Your task to perform on an android device: Open CNN.com Image 0: 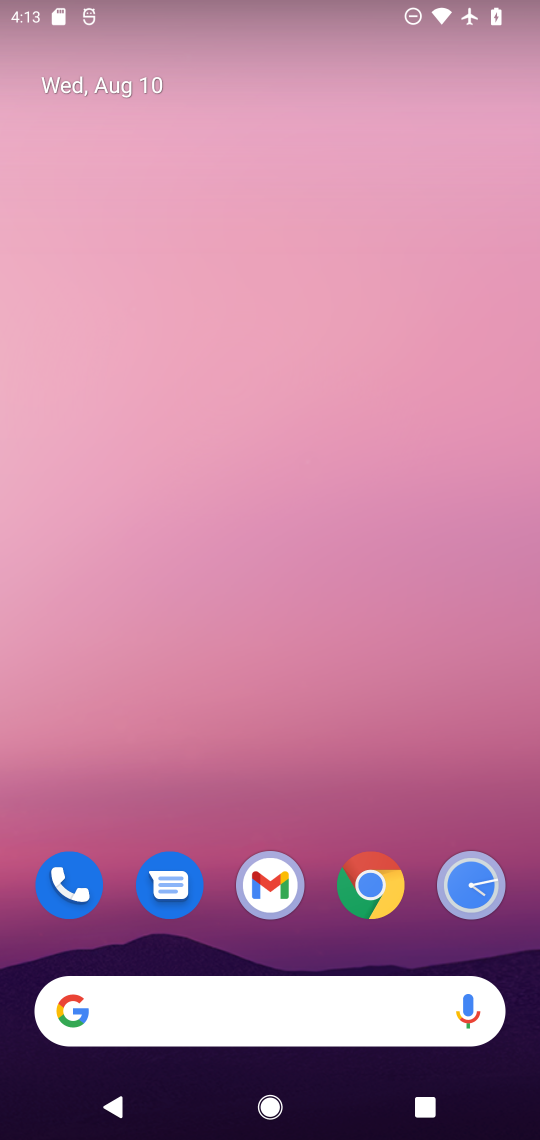
Step 0: click (374, 890)
Your task to perform on an android device: Open CNN.com Image 1: 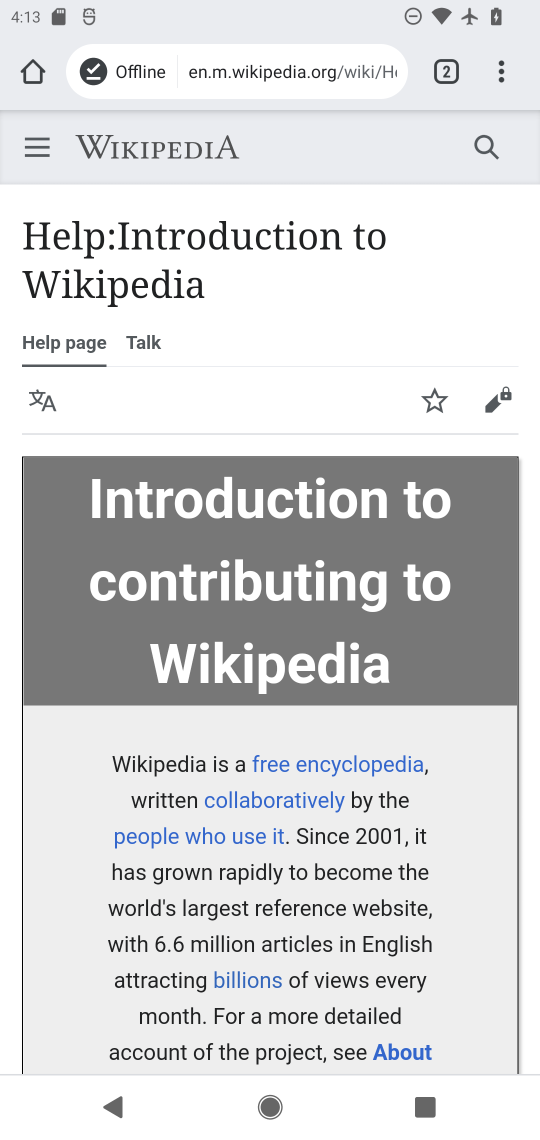
Step 1: click (506, 73)
Your task to perform on an android device: Open CNN.com Image 2: 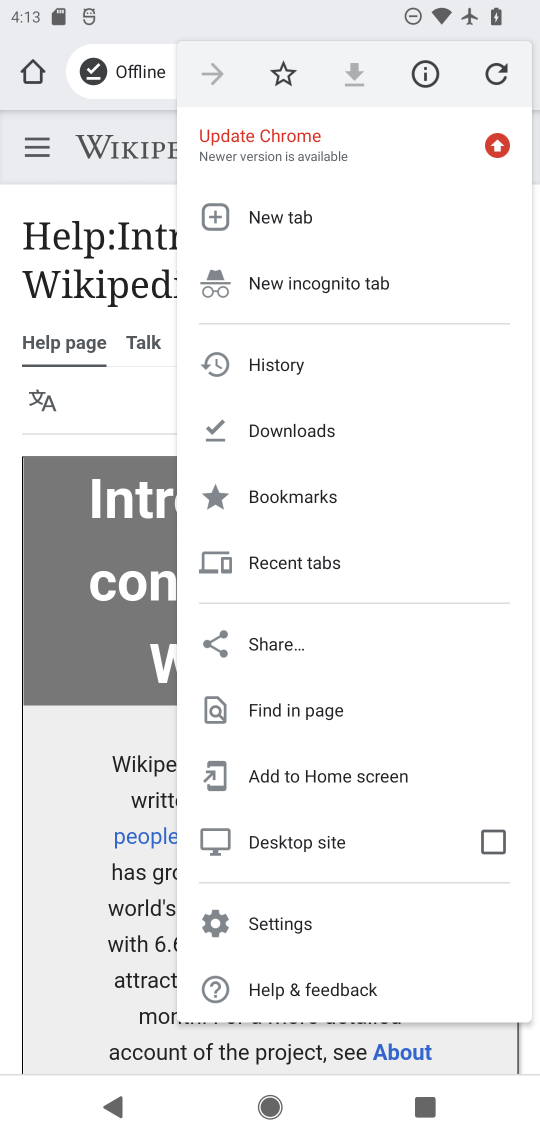
Step 2: click (309, 210)
Your task to perform on an android device: Open CNN.com Image 3: 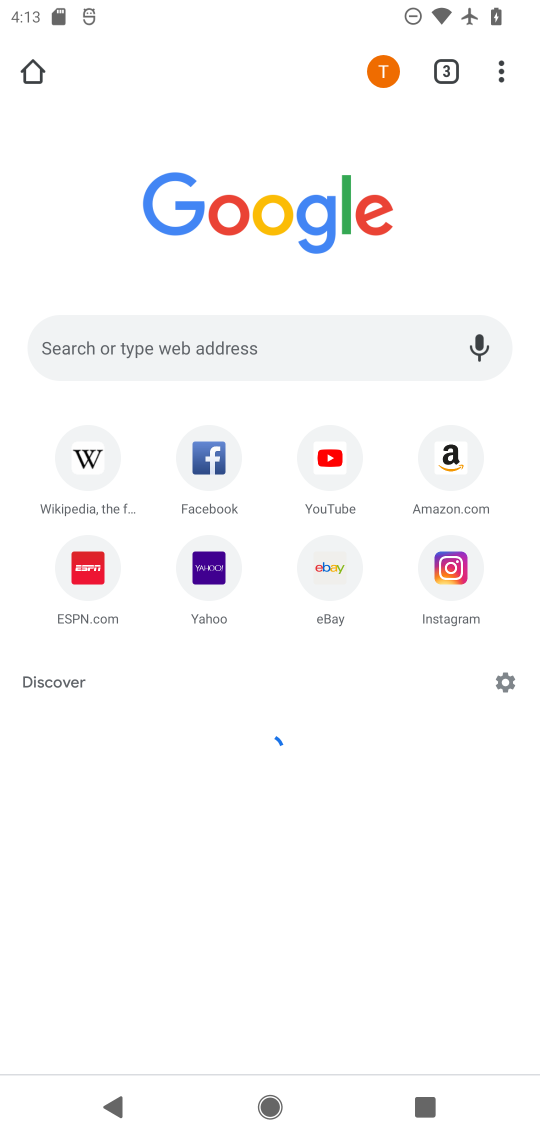
Step 3: click (242, 345)
Your task to perform on an android device: Open CNN.com Image 4: 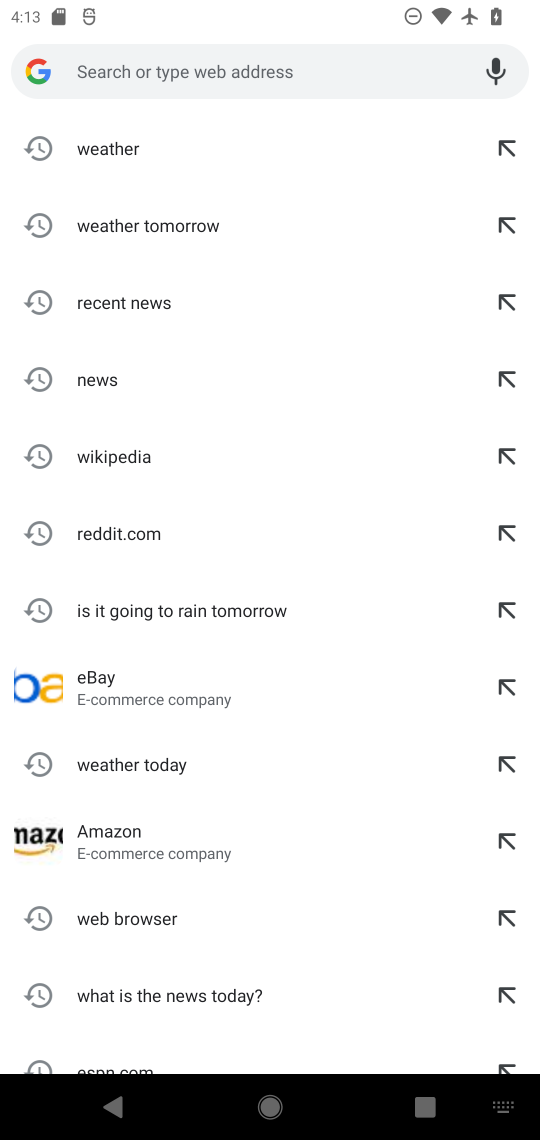
Step 4: type "cnn.com"
Your task to perform on an android device: Open CNN.com Image 5: 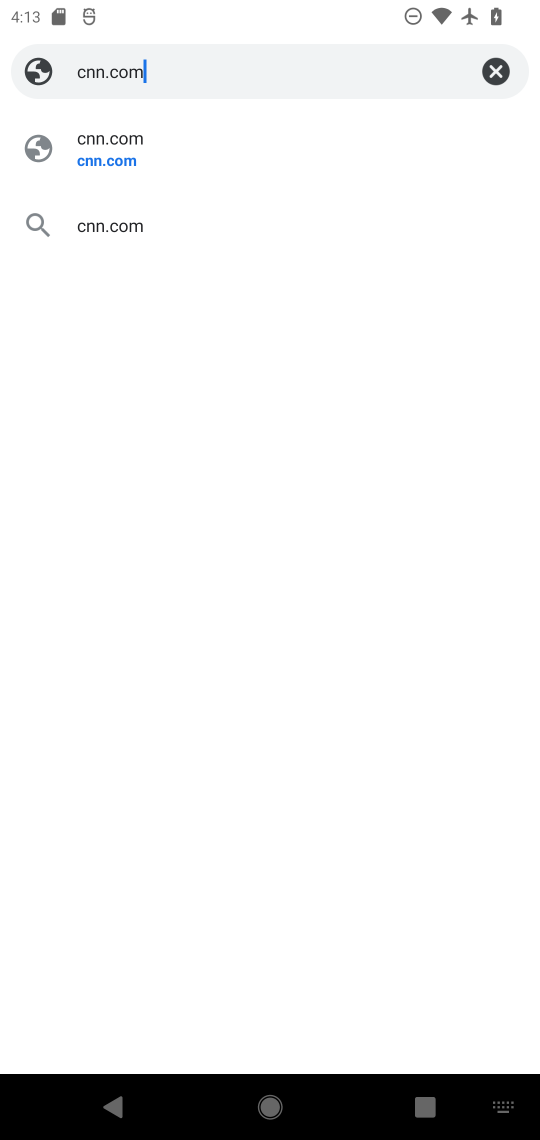
Step 5: click (115, 130)
Your task to perform on an android device: Open CNN.com Image 6: 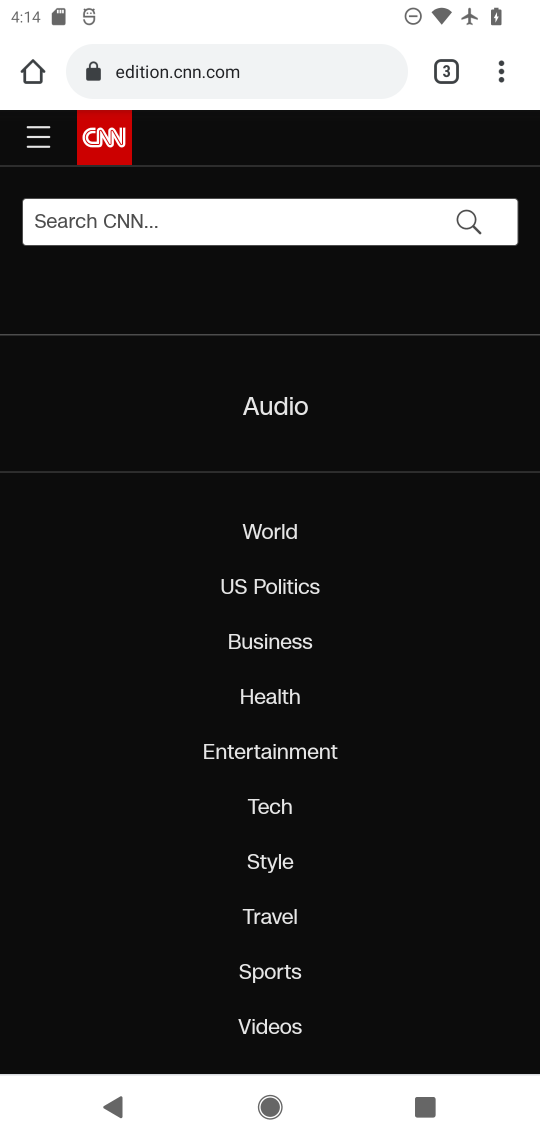
Step 6: task complete